Your task to perform on an android device: Search for razer blade on ebay.com, select the first entry, and add it to the cart. Image 0: 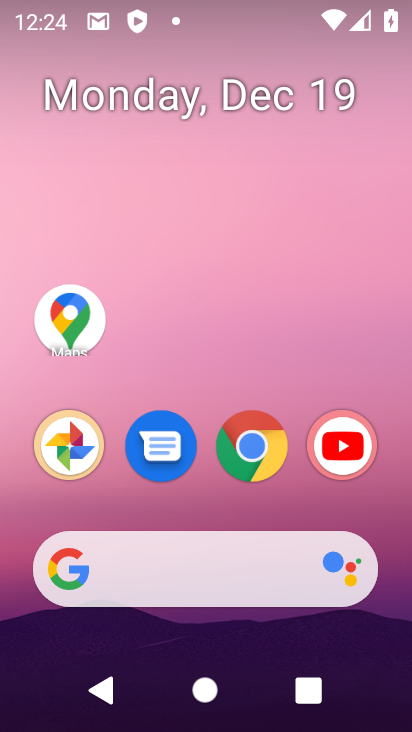
Step 0: click (250, 437)
Your task to perform on an android device: Search for razer blade on ebay.com, select the first entry, and add it to the cart. Image 1: 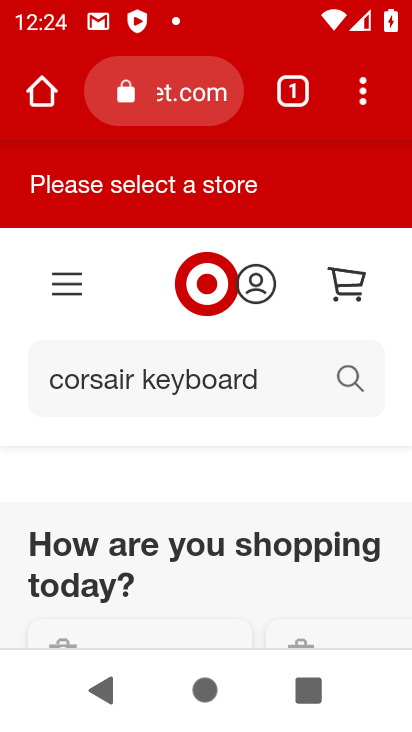
Step 1: click (167, 105)
Your task to perform on an android device: Search for razer blade on ebay.com, select the first entry, and add it to the cart. Image 2: 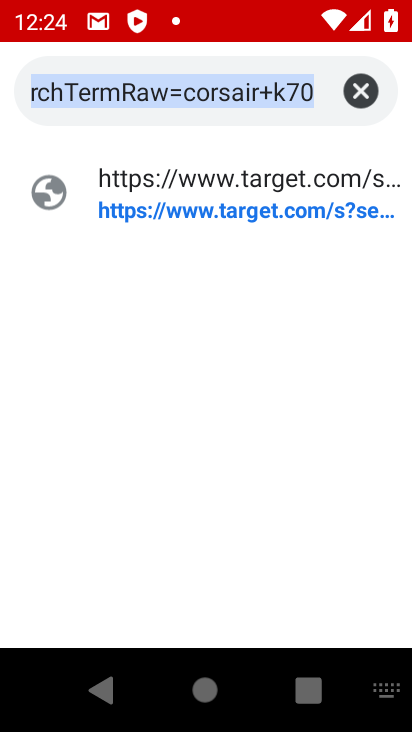
Step 2: type "ebay.com"
Your task to perform on an android device: Search for razer blade on ebay.com, select the first entry, and add it to the cart. Image 3: 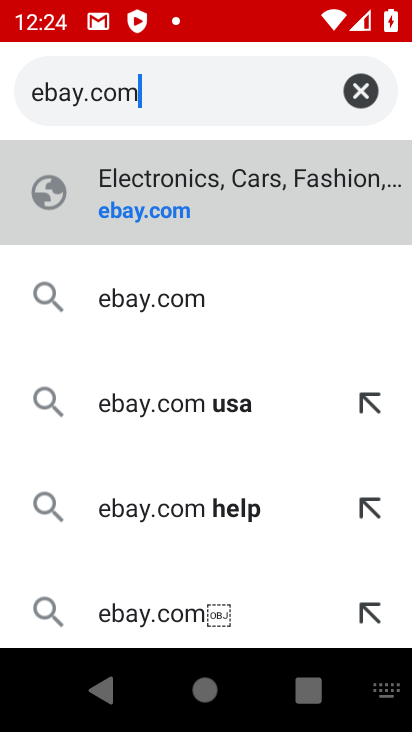
Step 3: click (173, 225)
Your task to perform on an android device: Search for razer blade on ebay.com, select the first entry, and add it to the cart. Image 4: 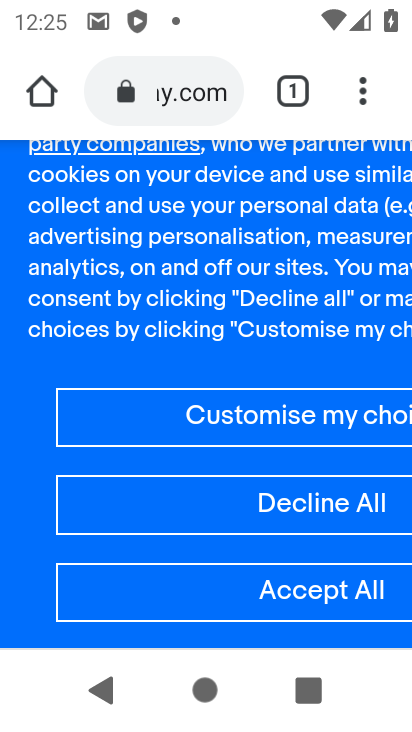
Step 4: drag from (242, 181) to (240, 251)
Your task to perform on an android device: Search for razer blade on ebay.com, select the first entry, and add it to the cart. Image 5: 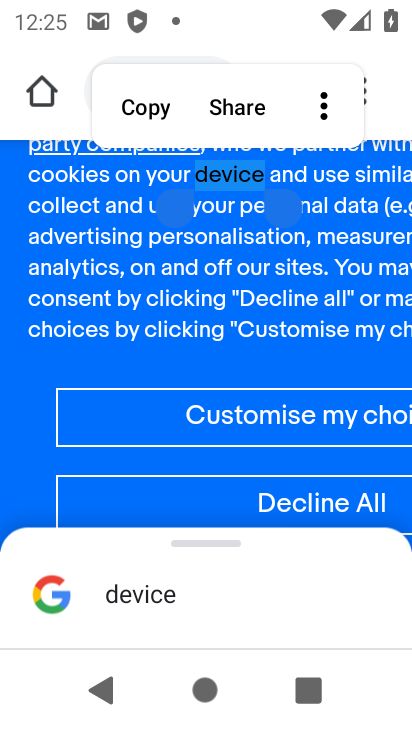
Step 5: click (4, 279)
Your task to perform on an android device: Search for razer blade on ebay.com, select the first entry, and add it to the cart. Image 6: 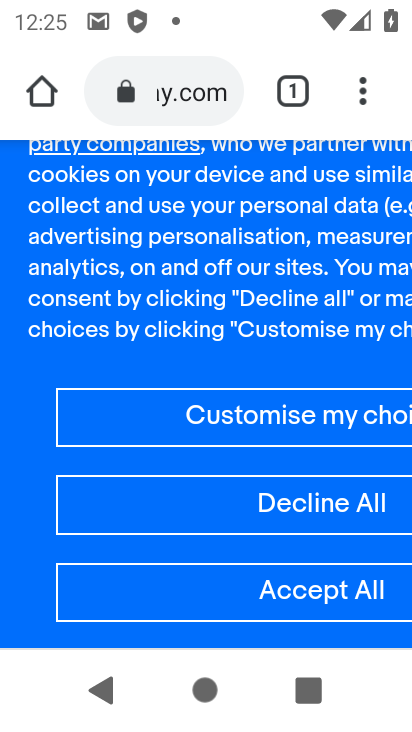
Step 6: click (258, 571)
Your task to perform on an android device: Search for razer blade on ebay.com, select the first entry, and add it to the cart. Image 7: 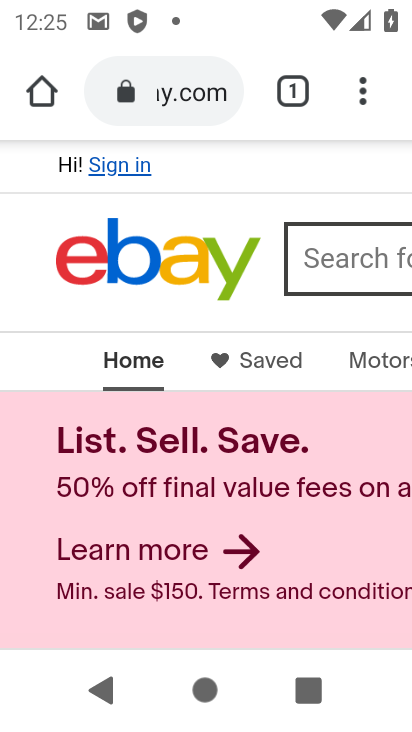
Step 7: click (378, 248)
Your task to perform on an android device: Search for razer blade on ebay.com, select the first entry, and add it to the cart. Image 8: 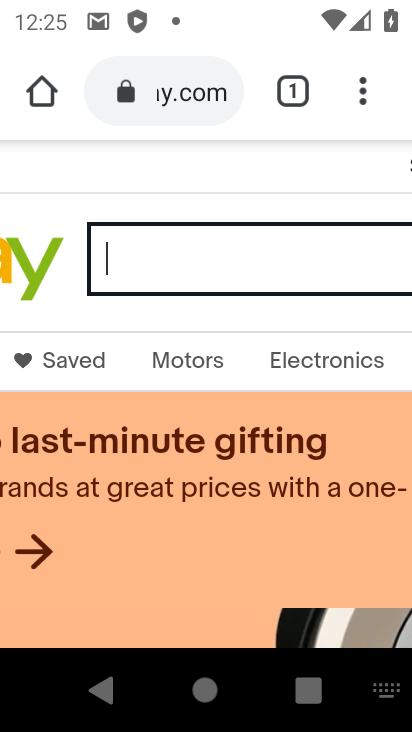
Step 8: type "razer blade"
Your task to perform on an android device: Search for razer blade on ebay.com, select the first entry, and add it to the cart. Image 9: 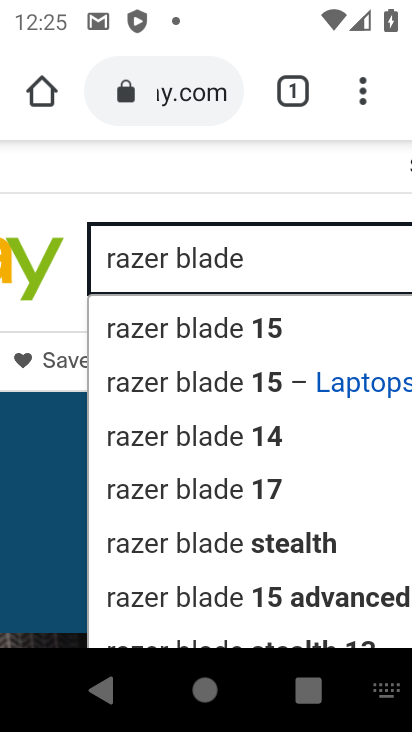
Step 9: click (222, 336)
Your task to perform on an android device: Search for razer blade on ebay.com, select the first entry, and add it to the cart. Image 10: 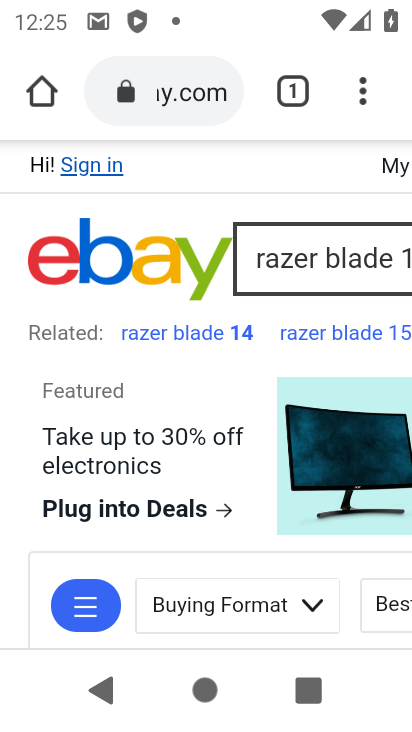
Step 10: drag from (259, 528) to (191, 141)
Your task to perform on an android device: Search for razer blade on ebay.com, select the first entry, and add it to the cart. Image 11: 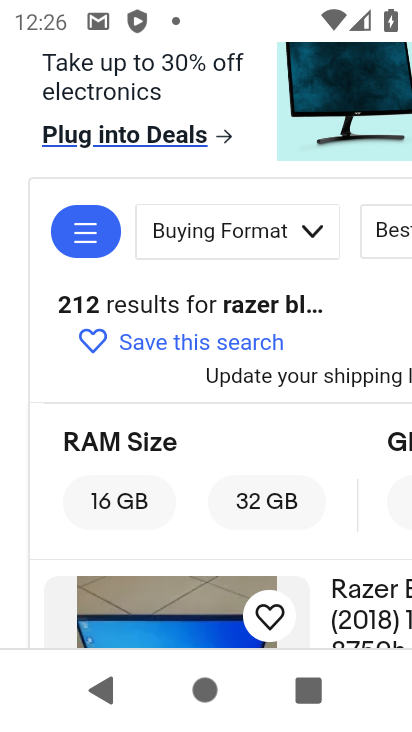
Step 11: click (373, 589)
Your task to perform on an android device: Search for razer blade on ebay.com, select the first entry, and add it to the cart. Image 12: 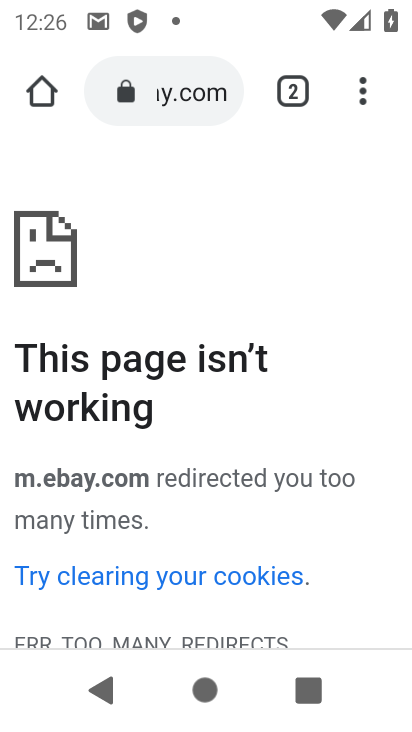
Step 12: task complete